Your task to perform on an android device: open app "Roku - Official Remote Control" Image 0: 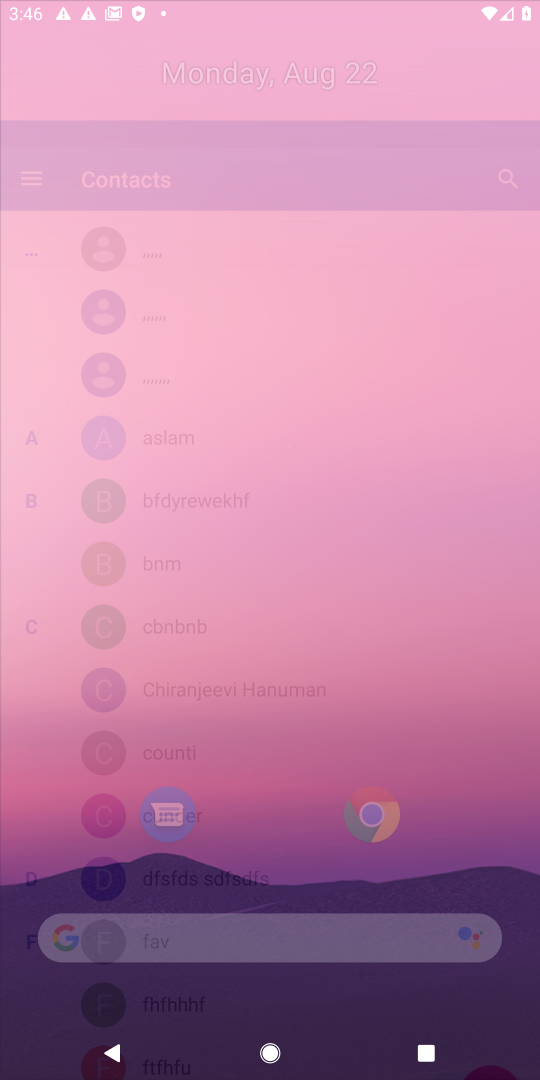
Step 0: press home button
Your task to perform on an android device: open app "Roku - Official Remote Control" Image 1: 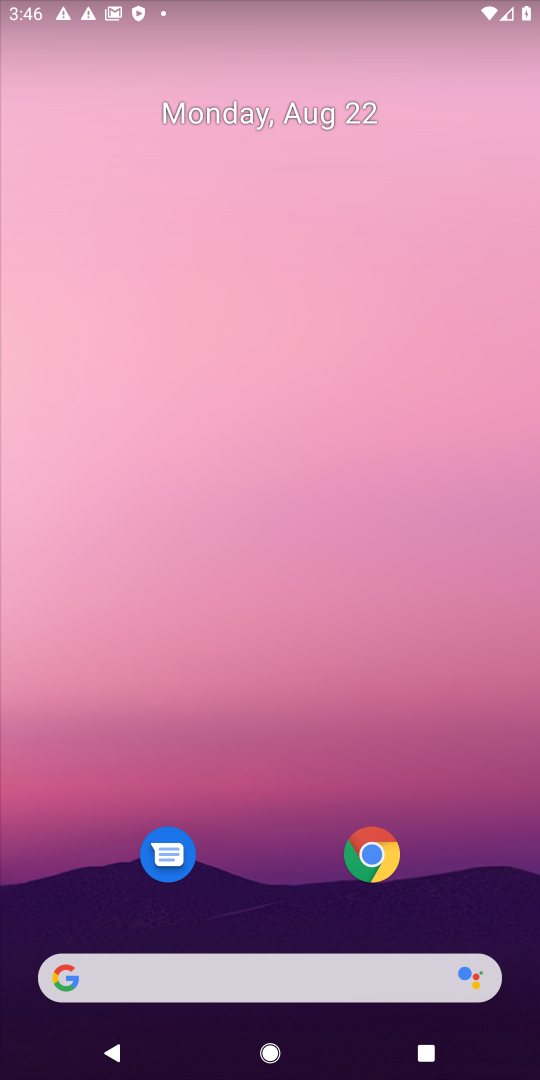
Step 1: press home button
Your task to perform on an android device: open app "Roku - Official Remote Control" Image 2: 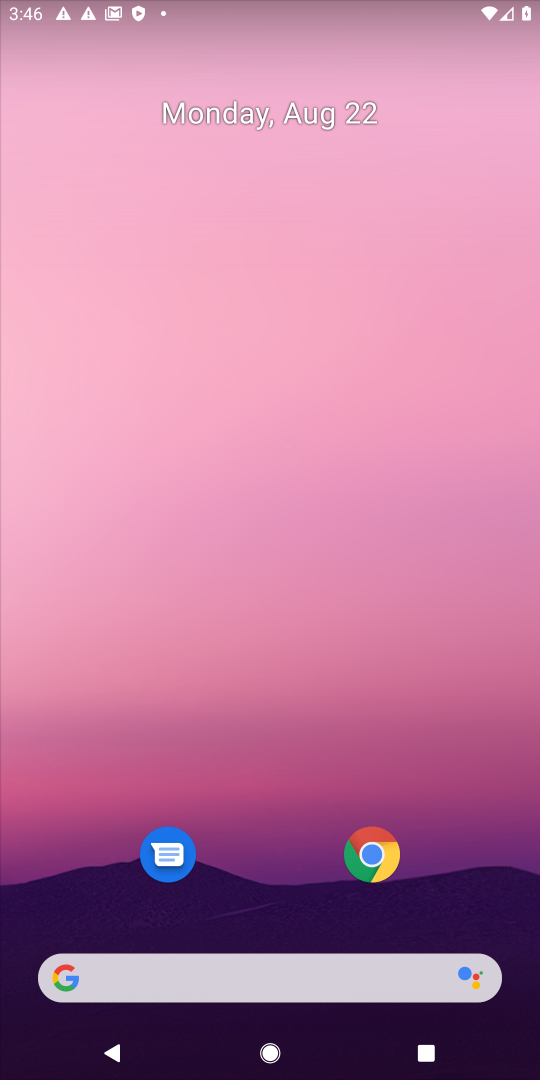
Step 2: drag from (259, 925) to (270, 75)
Your task to perform on an android device: open app "Roku - Official Remote Control" Image 3: 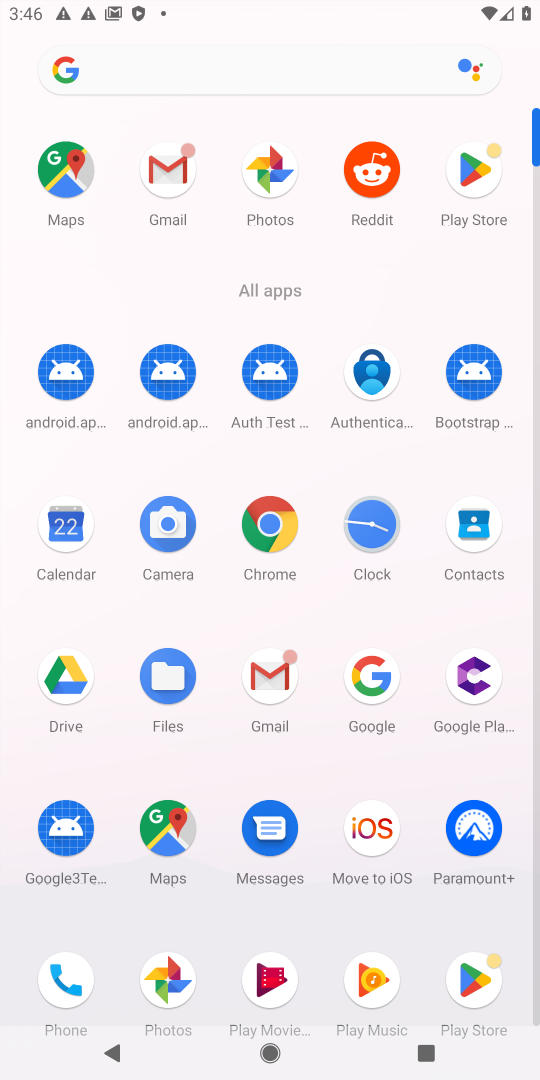
Step 3: click (471, 986)
Your task to perform on an android device: open app "Roku - Official Remote Control" Image 4: 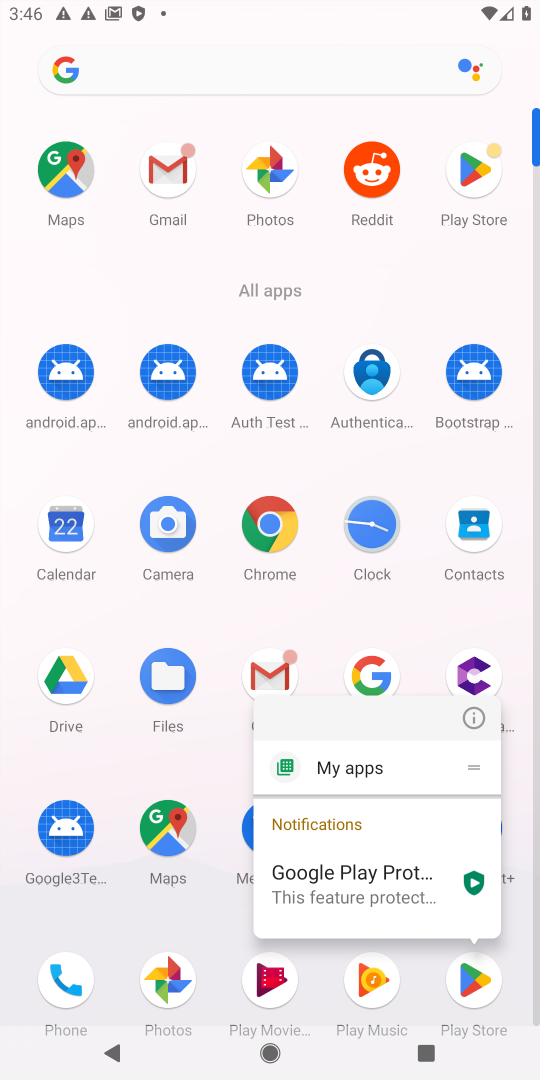
Step 4: click (470, 986)
Your task to perform on an android device: open app "Roku - Official Remote Control" Image 5: 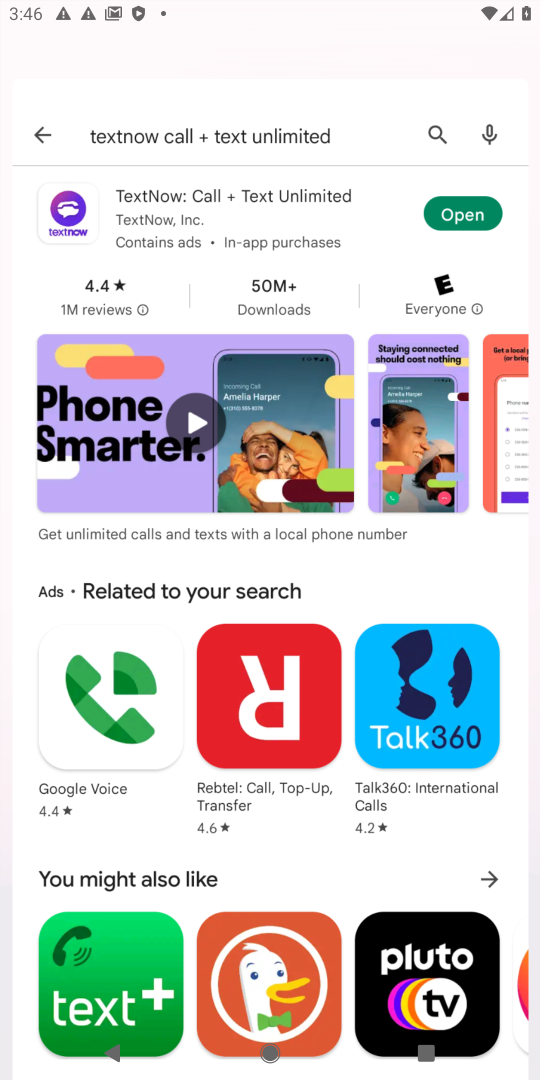
Step 5: click (470, 986)
Your task to perform on an android device: open app "Roku - Official Remote Control" Image 6: 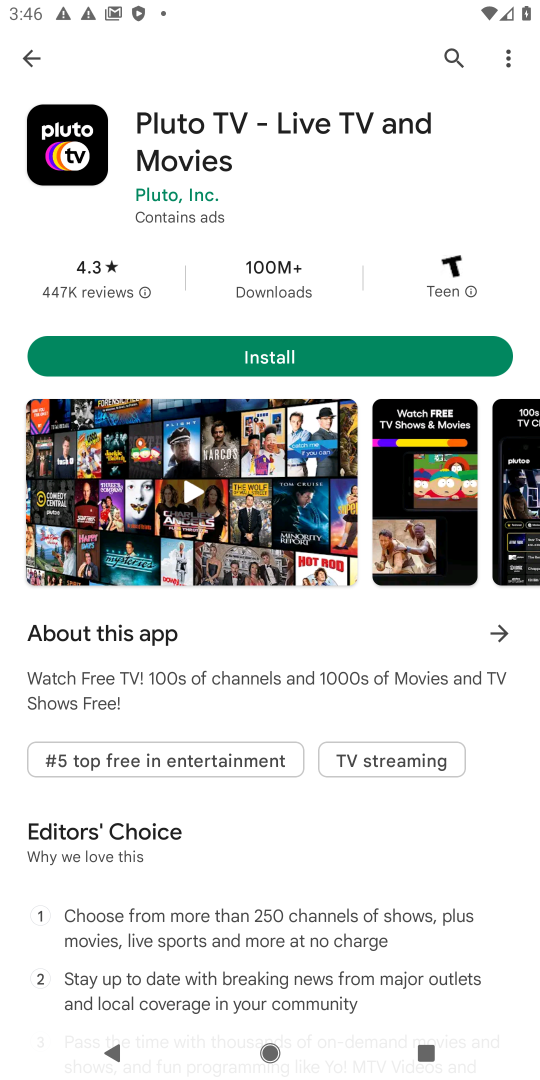
Step 6: click (446, 50)
Your task to perform on an android device: open app "Roku - Official Remote Control" Image 7: 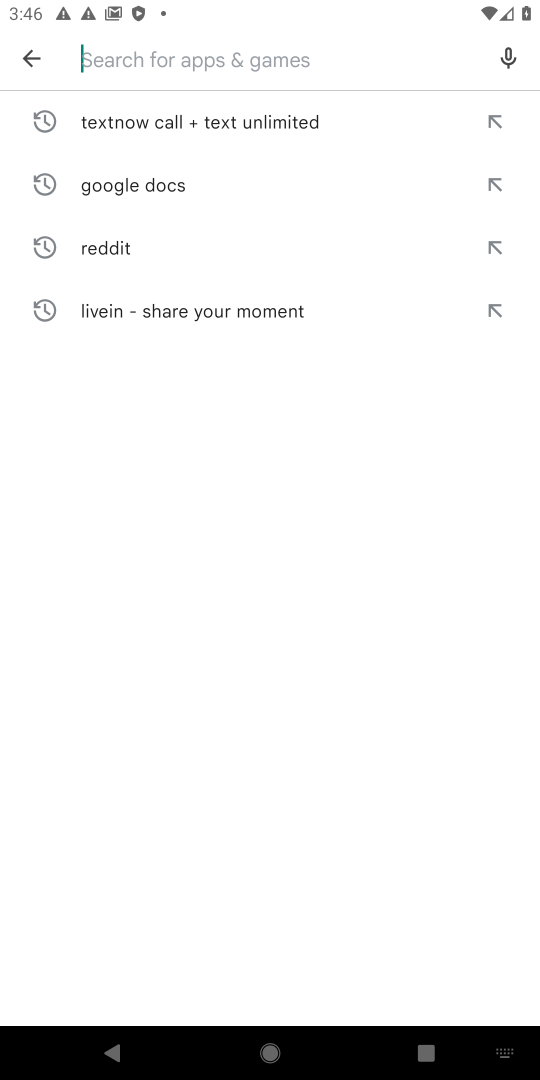
Step 7: type "Roku - Official Remote Control"
Your task to perform on an android device: open app "Roku - Official Remote Control" Image 8: 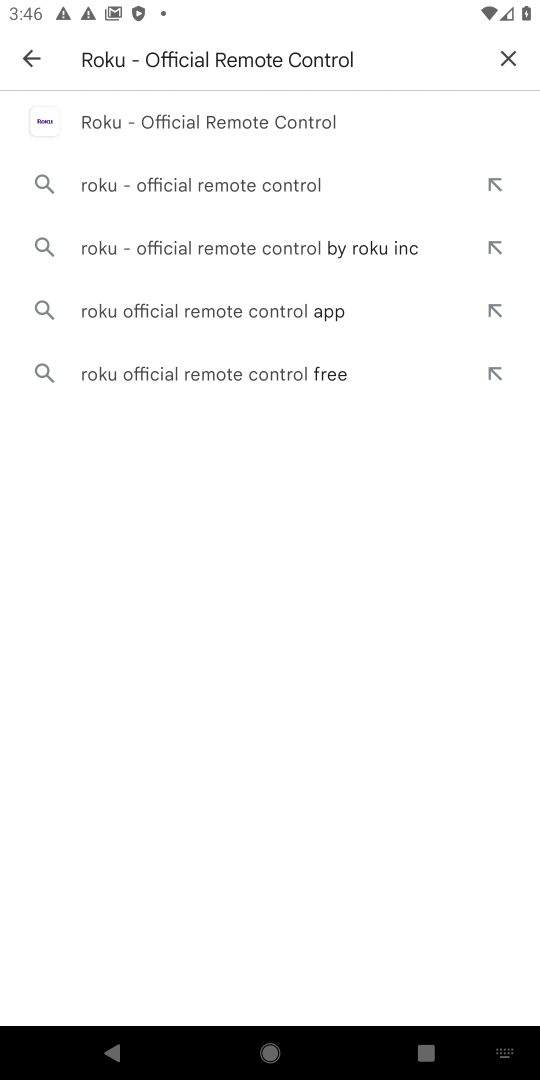
Step 8: click (228, 128)
Your task to perform on an android device: open app "Roku - Official Remote Control" Image 9: 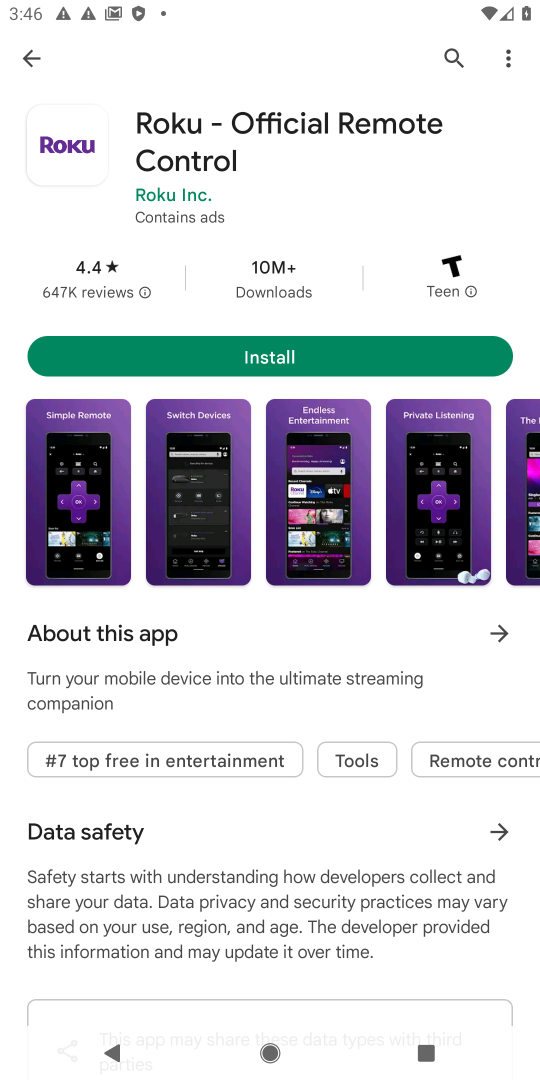
Step 9: task complete